Your task to perform on an android device: turn off priority inbox in the gmail app Image 0: 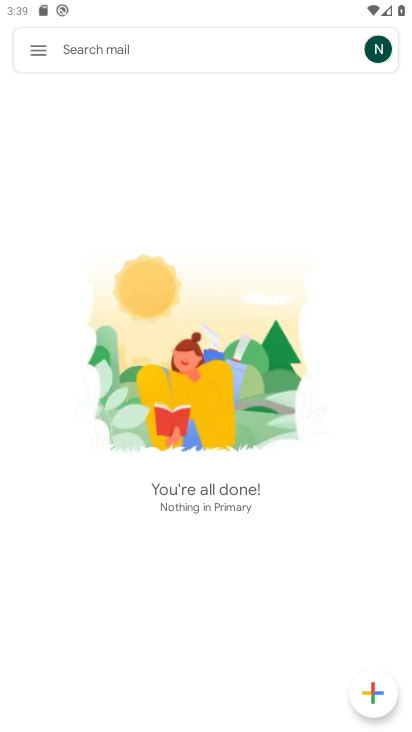
Step 0: click (38, 51)
Your task to perform on an android device: turn off priority inbox in the gmail app Image 1: 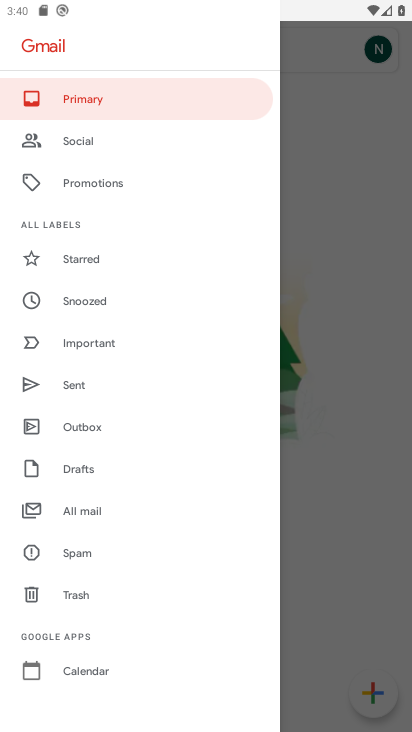
Step 1: drag from (113, 644) to (165, 17)
Your task to perform on an android device: turn off priority inbox in the gmail app Image 2: 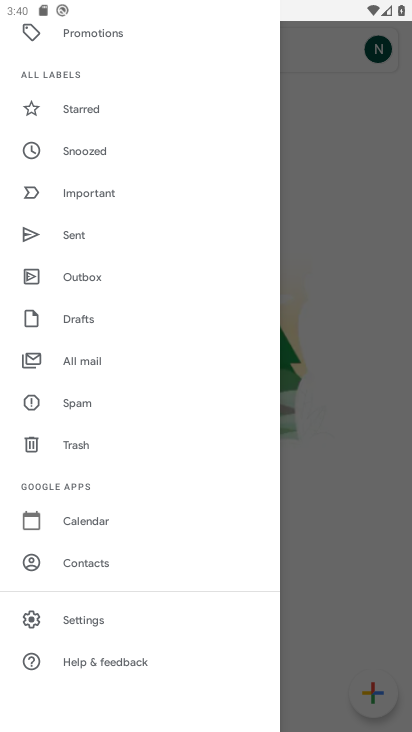
Step 2: drag from (140, 666) to (89, 316)
Your task to perform on an android device: turn off priority inbox in the gmail app Image 3: 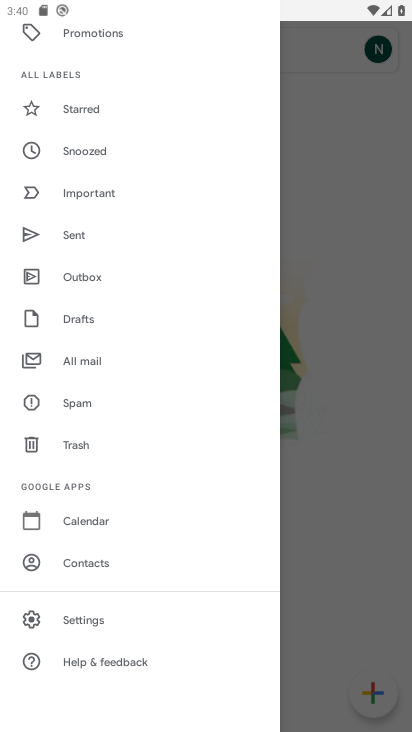
Step 3: click (73, 628)
Your task to perform on an android device: turn off priority inbox in the gmail app Image 4: 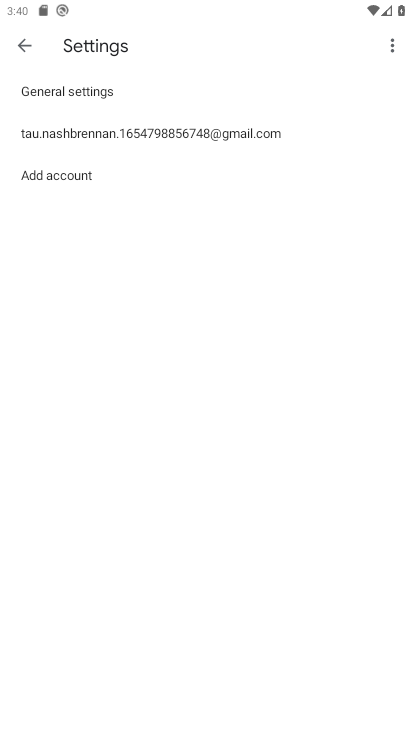
Step 4: click (104, 132)
Your task to perform on an android device: turn off priority inbox in the gmail app Image 5: 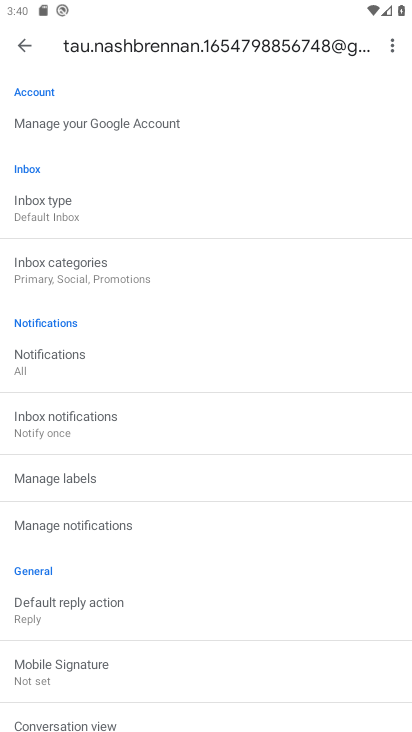
Step 5: click (93, 232)
Your task to perform on an android device: turn off priority inbox in the gmail app Image 6: 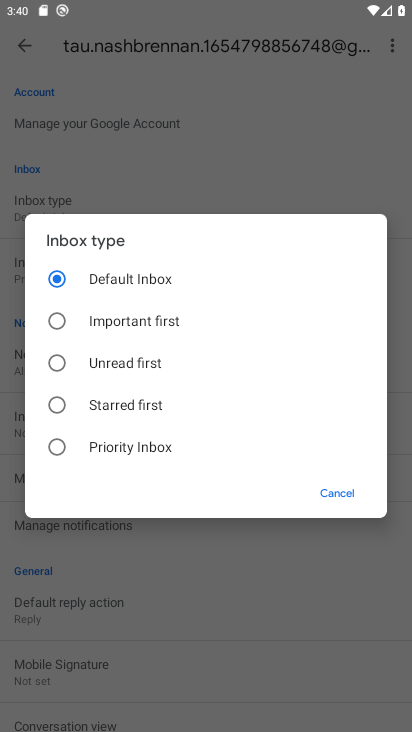
Step 6: click (132, 414)
Your task to perform on an android device: turn off priority inbox in the gmail app Image 7: 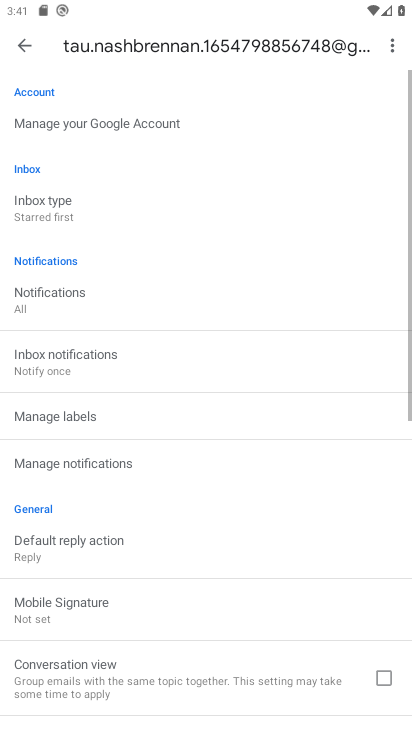
Step 7: task complete